Your task to perform on an android device: turn off airplane mode Image 0: 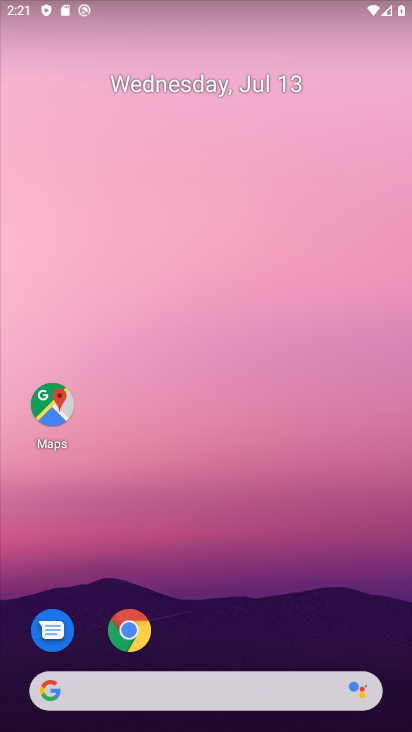
Step 0: drag from (243, 628) to (132, 103)
Your task to perform on an android device: turn off airplane mode Image 1: 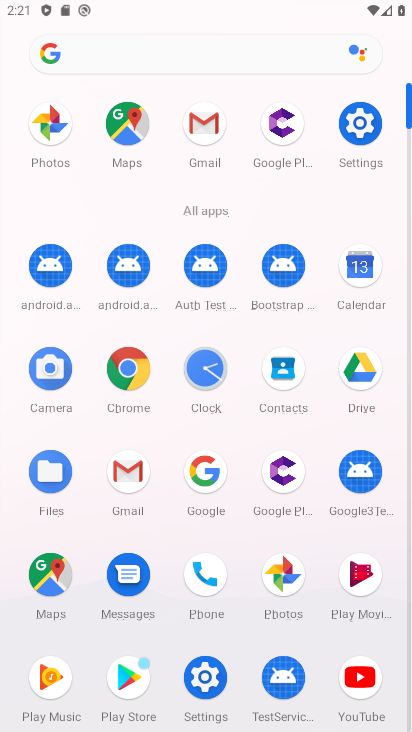
Step 1: click (358, 130)
Your task to perform on an android device: turn off airplane mode Image 2: 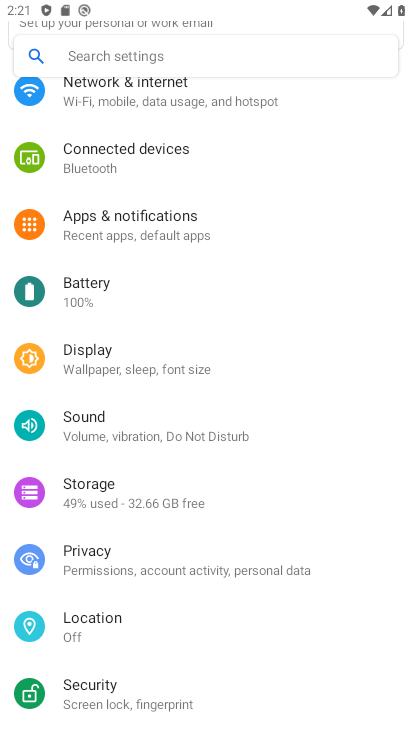
Step 2: click (236, 90)
Your task to perform on an android device: turn off airplane mode Image 3: 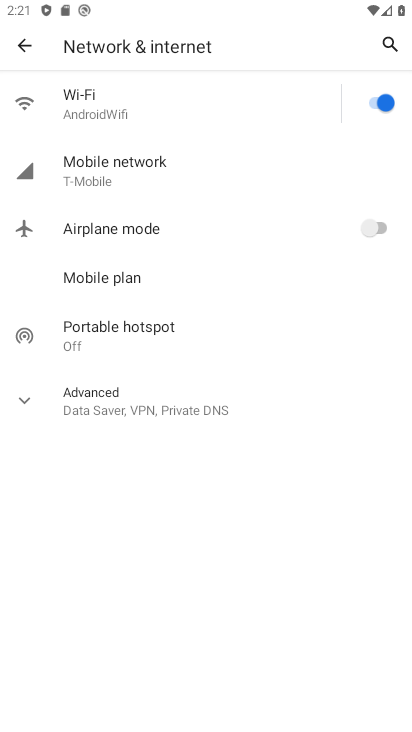
Step 3: task complete